Your task to perform on an android device: turn off picture-in-picture Image 0: 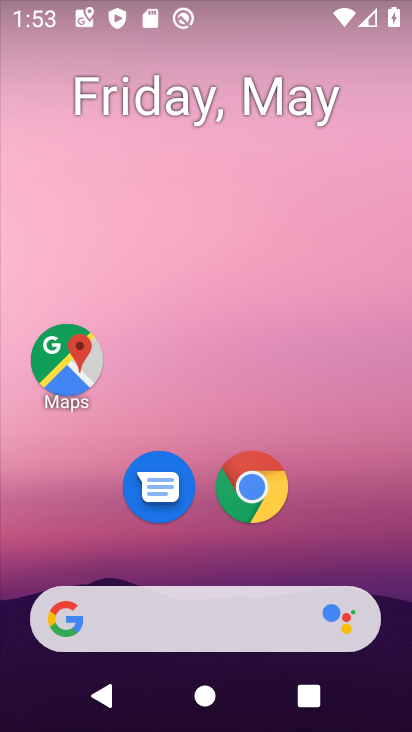
Step 0: click (258, 500)
Your task to perform on an android device: turn off picture-in-picture Image 1: 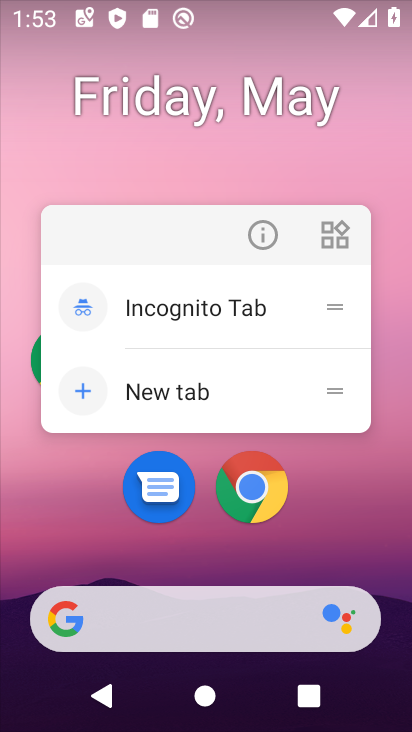
Step 1: click (261, 237)
Your task to perform on an android device: turn off picture-in-picture Image 2: 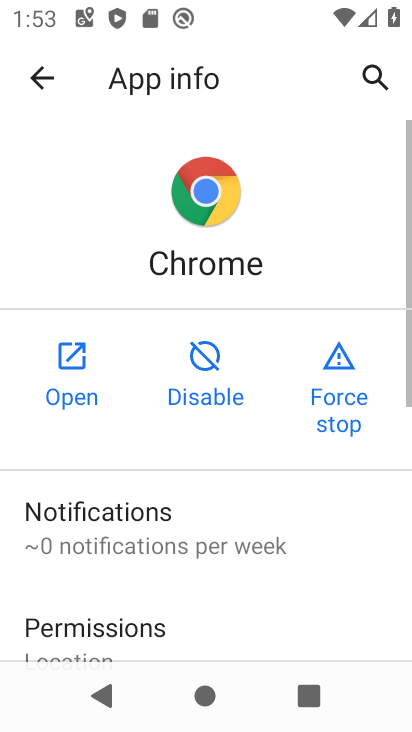
Step 2: drag from (291, 589) to (265, 47)
Your task to perform on an android device: turn off picture-in-picture Image 3: 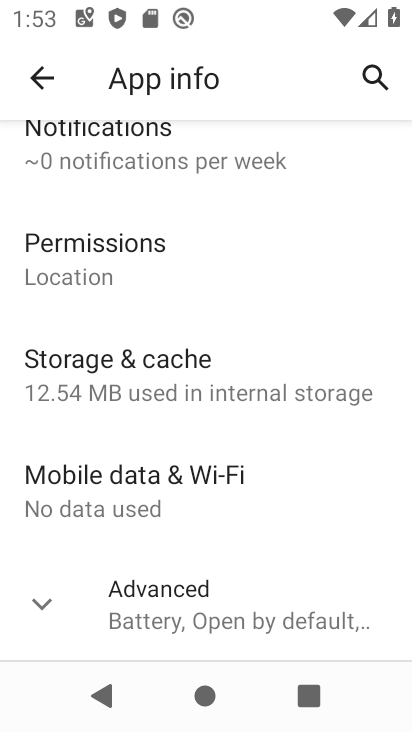
Step 3: click (39, 611)
Your task to perform on an android device: turn off picture-in-picture Image 4: 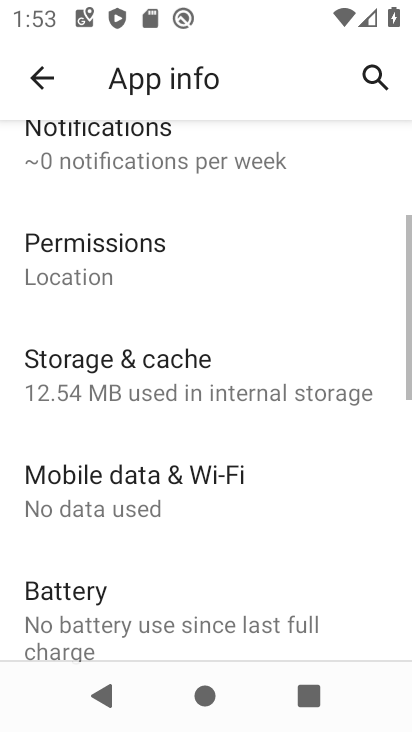
Step 4: drag from (169, 553) to (119, 73)
Your task to perform on an android device: turn off picture-in-picture Image 5: 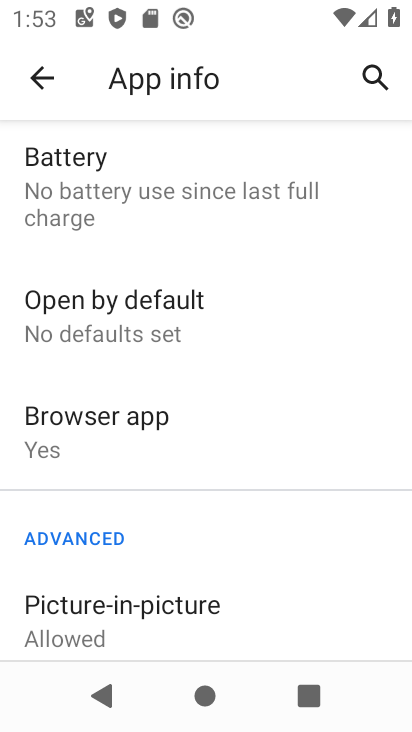
Step 5: drag from (164, 494) to (140, 153)
Your task to perform on an android device: turn off picture-in-picture Image 6: 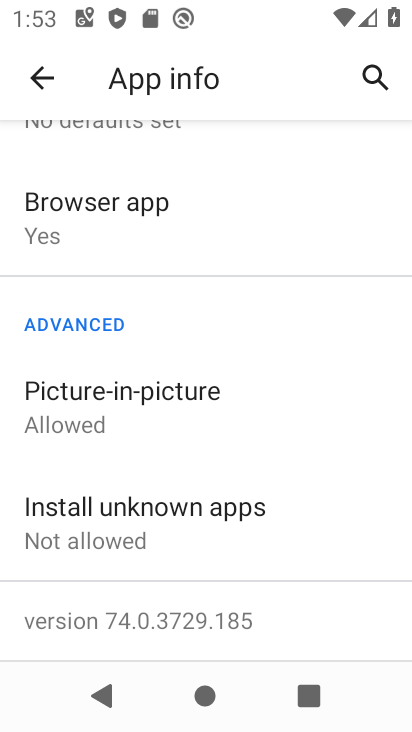
Step 6: click (114, 391)
Your task to perform on an android device: turn off picture-in-picture Image 7: 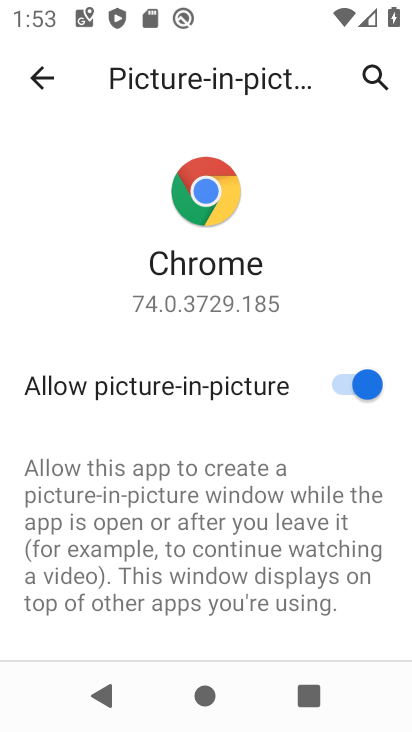
Step 7: click (367, 388)
Your task to perform on an android device: turn off picture-in-picture Image 8: 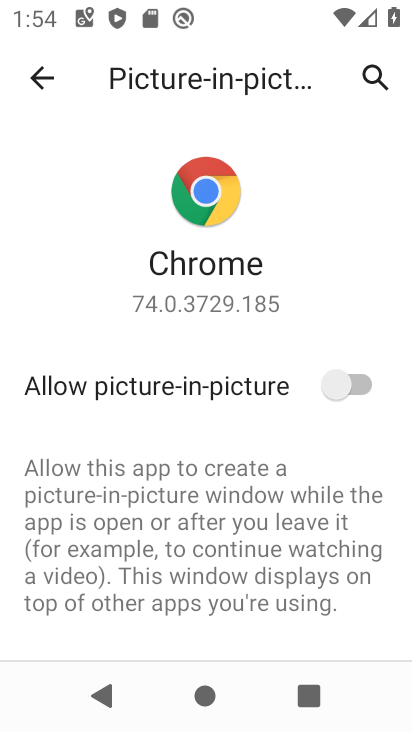
Step 8: task complete